Your task to perform on an android device: Look up the best gaming chair on Best Buy. Image 0: 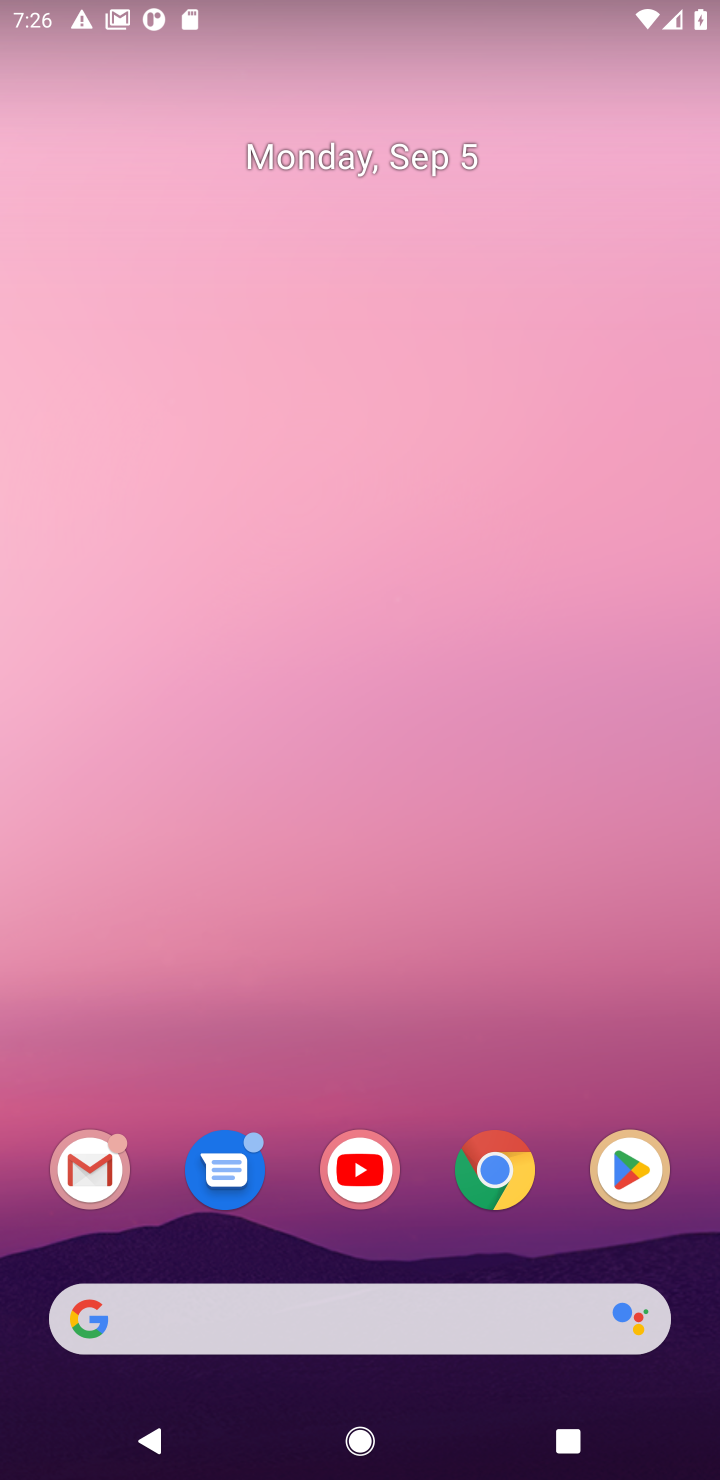
Step 0: click (513, 1177)
Your task to perform on an android device: Look up the best gaming chair on Best Buy. Image 1: 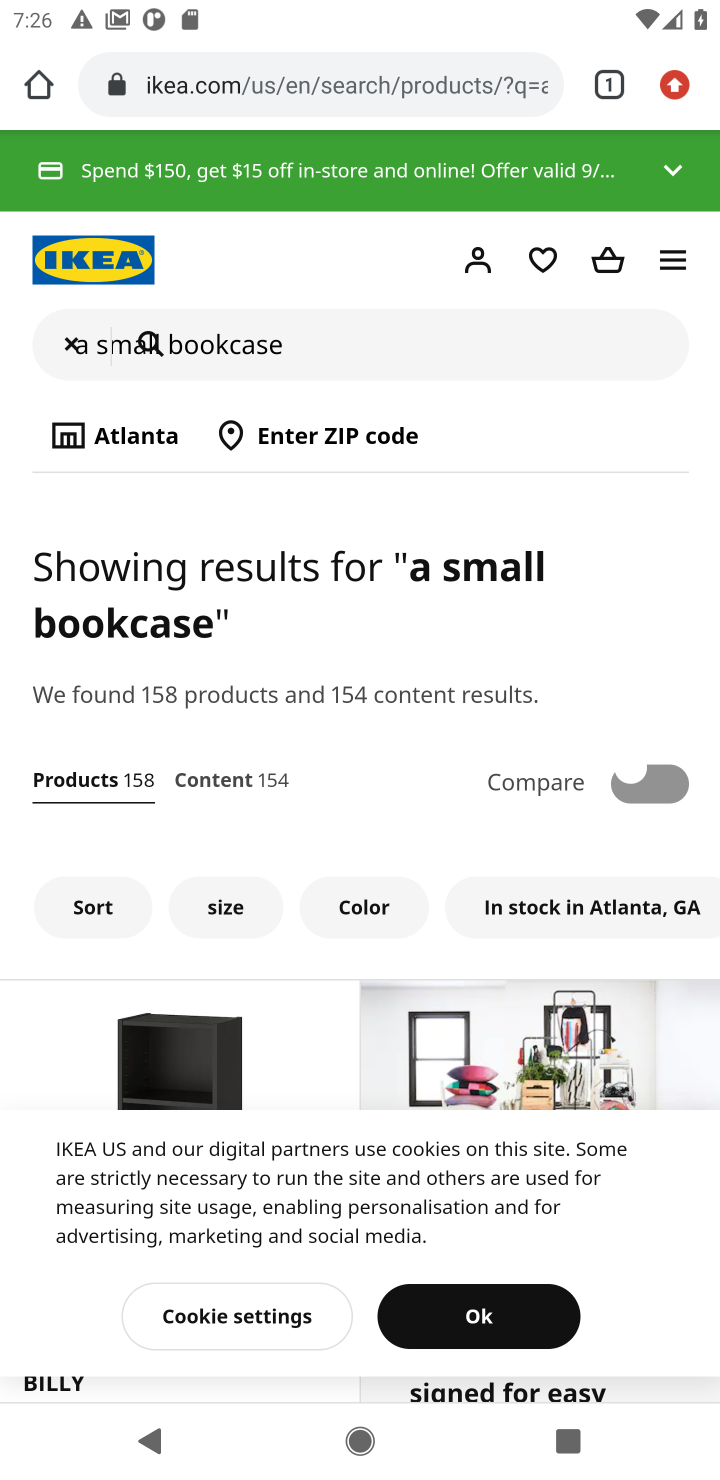
Step 1: click (440, 93)
Your task to perform on an android device: Look up the best gaming chair on Best Buy. Image 2: 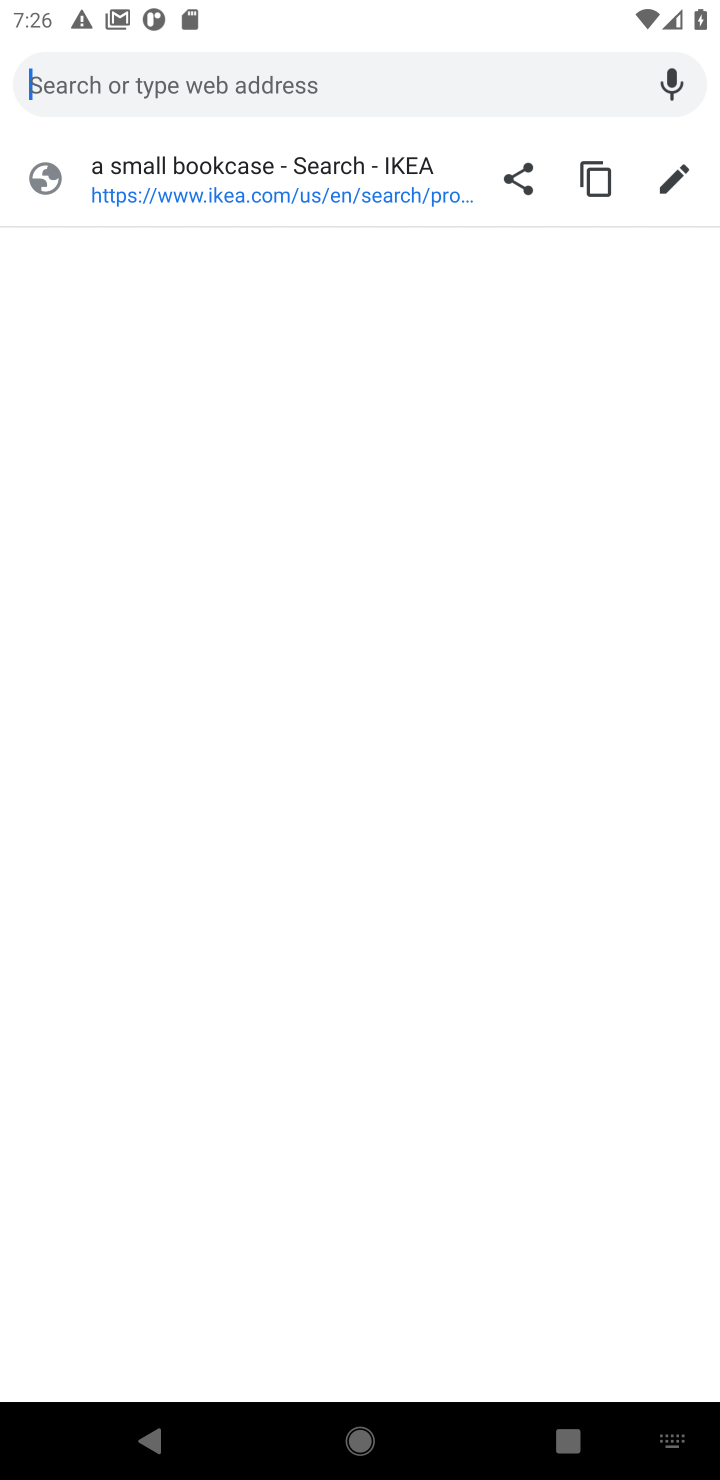
Step 2: type "best buy"
Your task to perform on an android device: Look up the best gaming chair on Best Buy. Image 3: 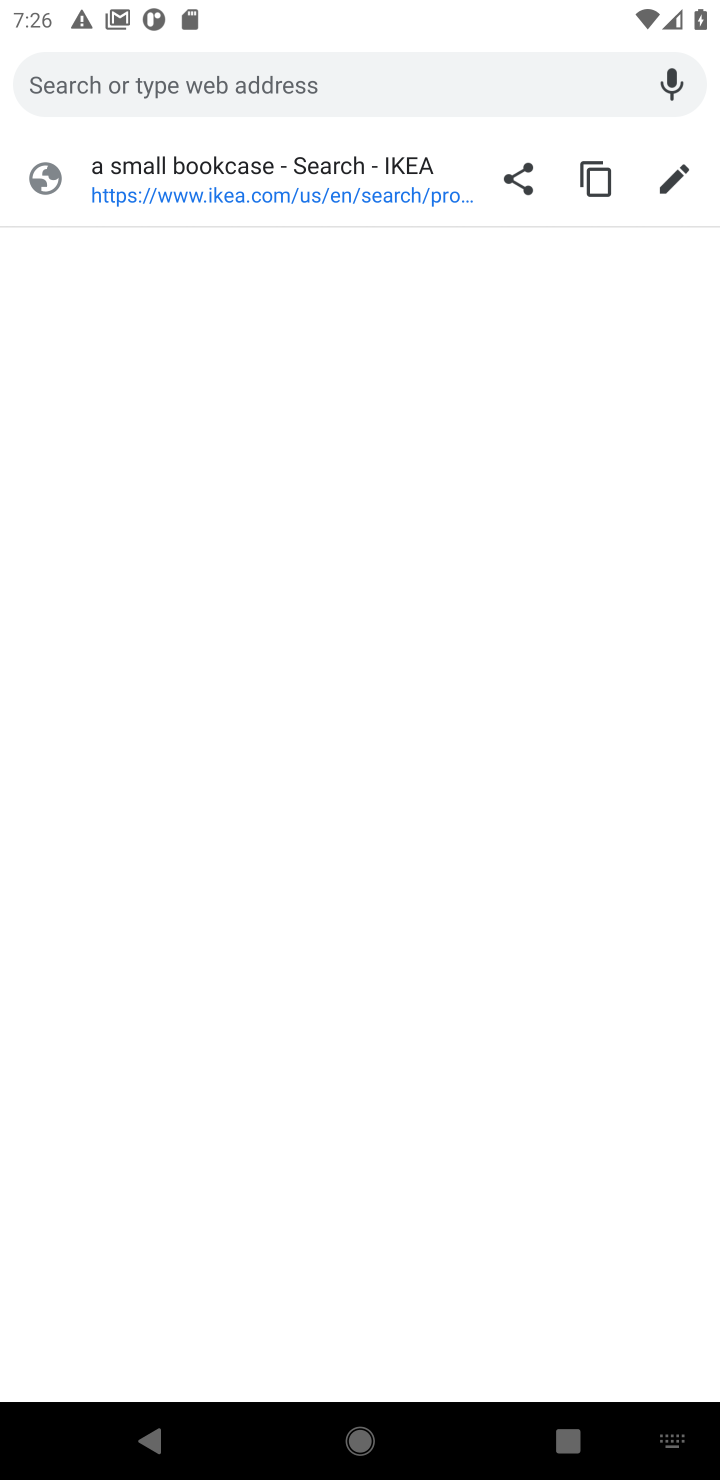
Step 3: click (467, 96)
Your task to perform on an android device: Look up the best gaming chair on Best Buy. Image 4: 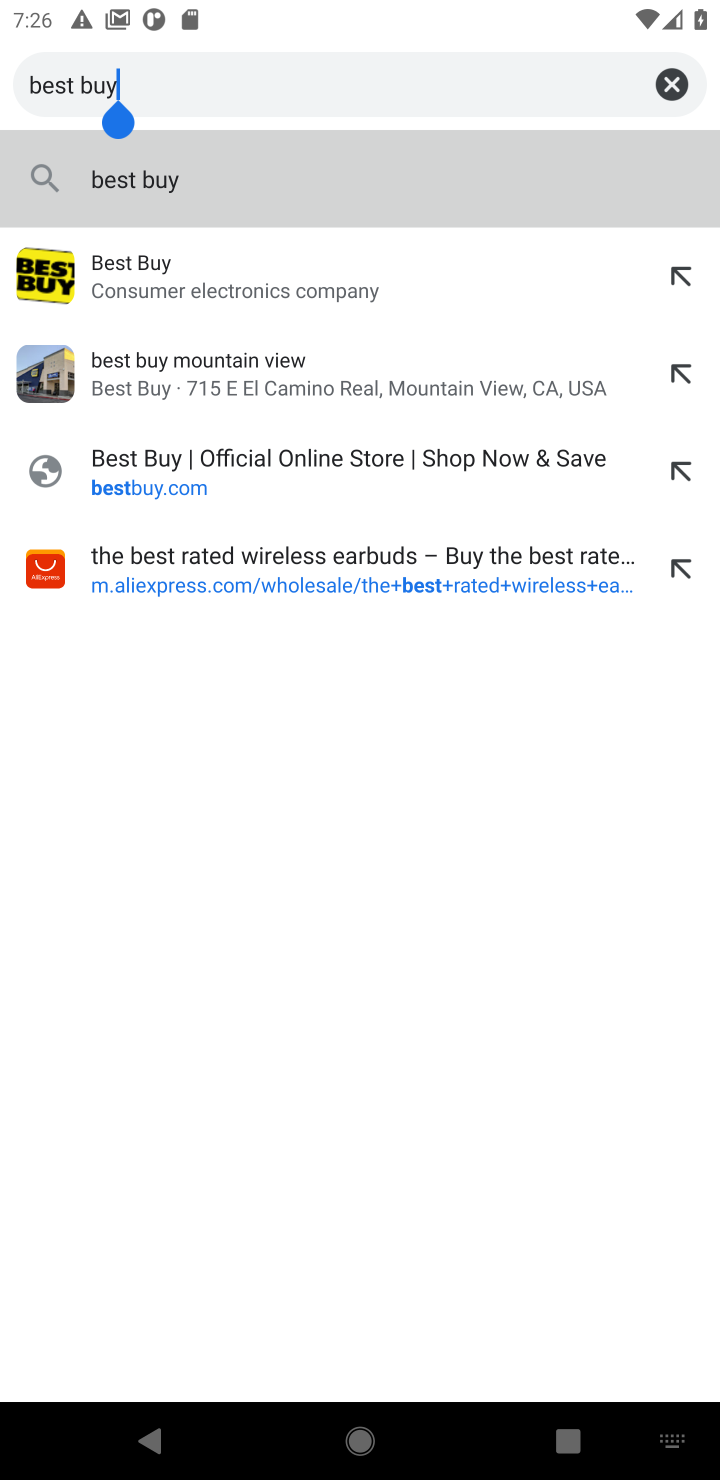
Step 4: click (236, 195)
Your task to perform on an android device: Look up the best gaming chair on Best Buy. Image 5: 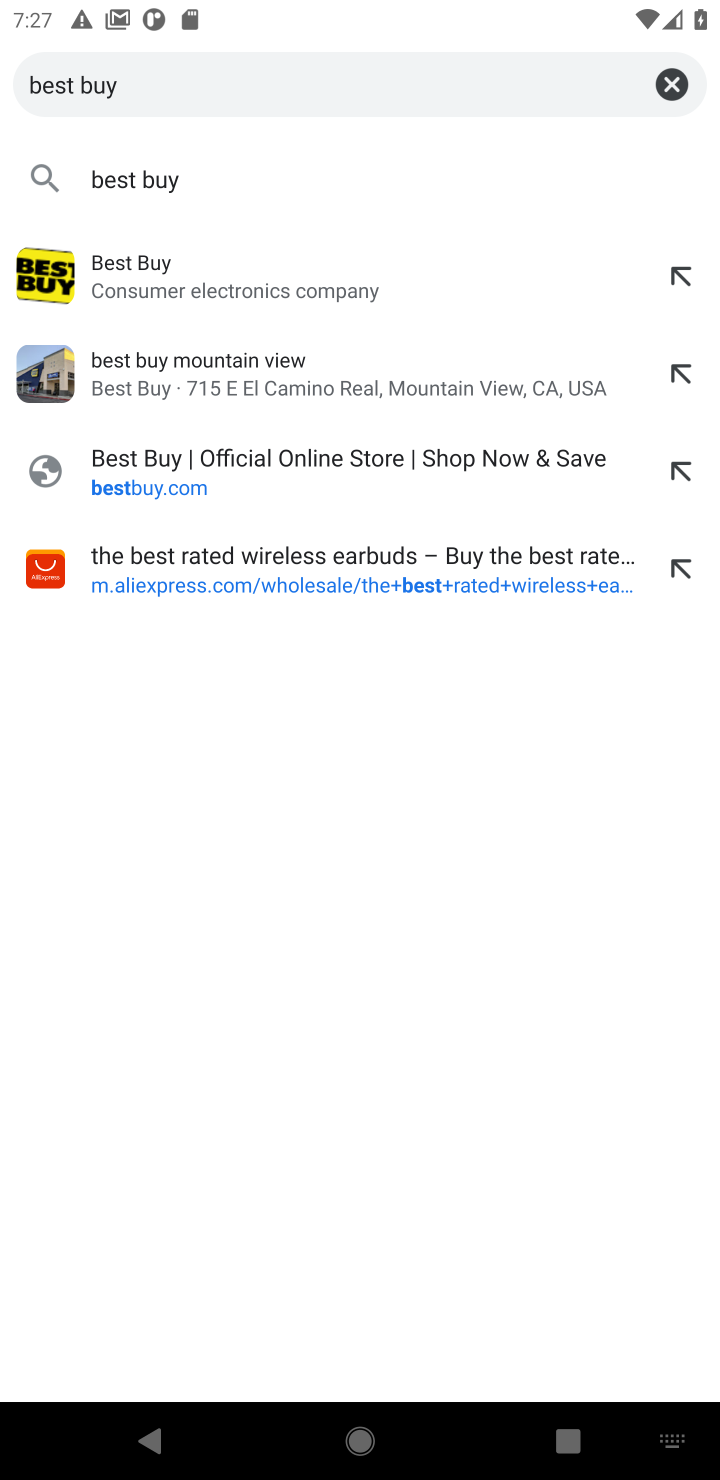
Step 5: click (150, 269)
Your task to perform on an android device: Look up the best gaming chair on Best Buy. Image 6: 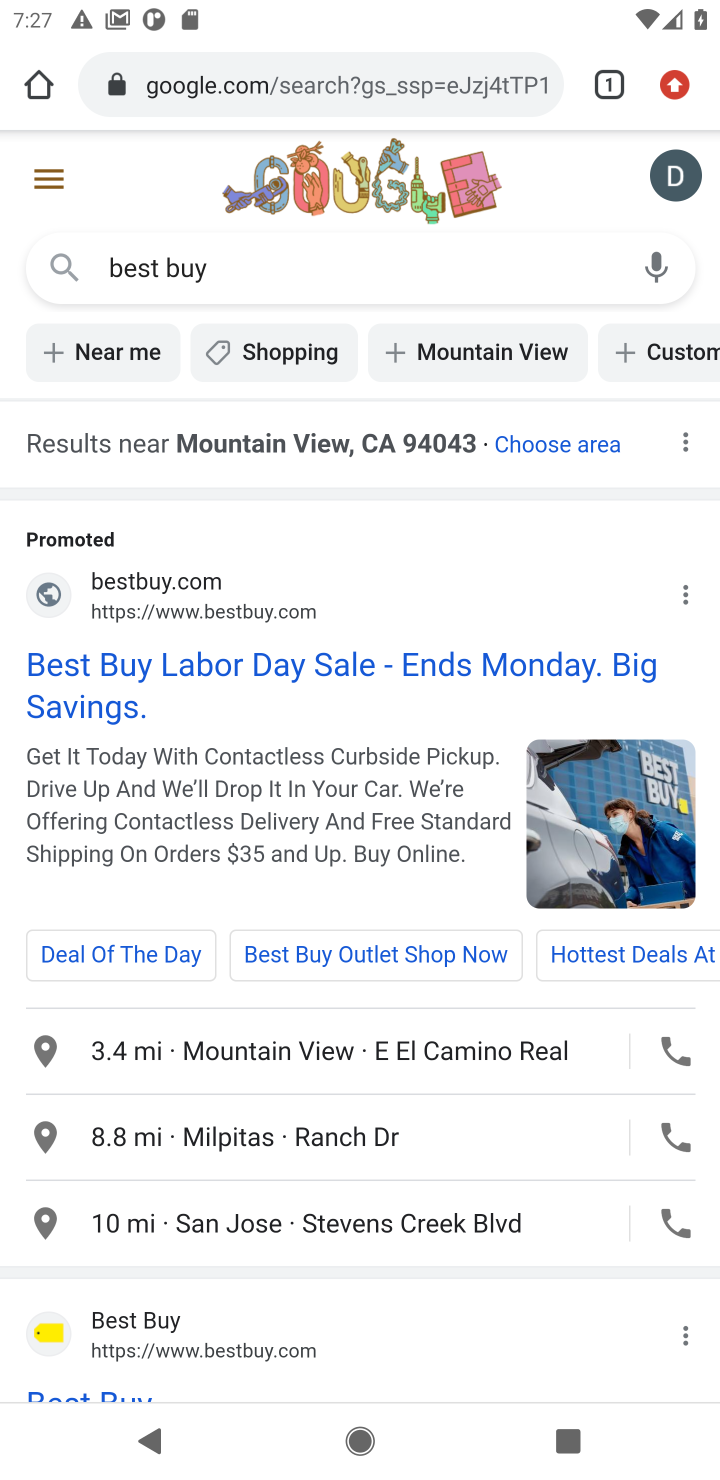
Step 6: click (233, 662)
Your task to perform on an android device: Look up the best gaming chair on Best Buy. Image 7: 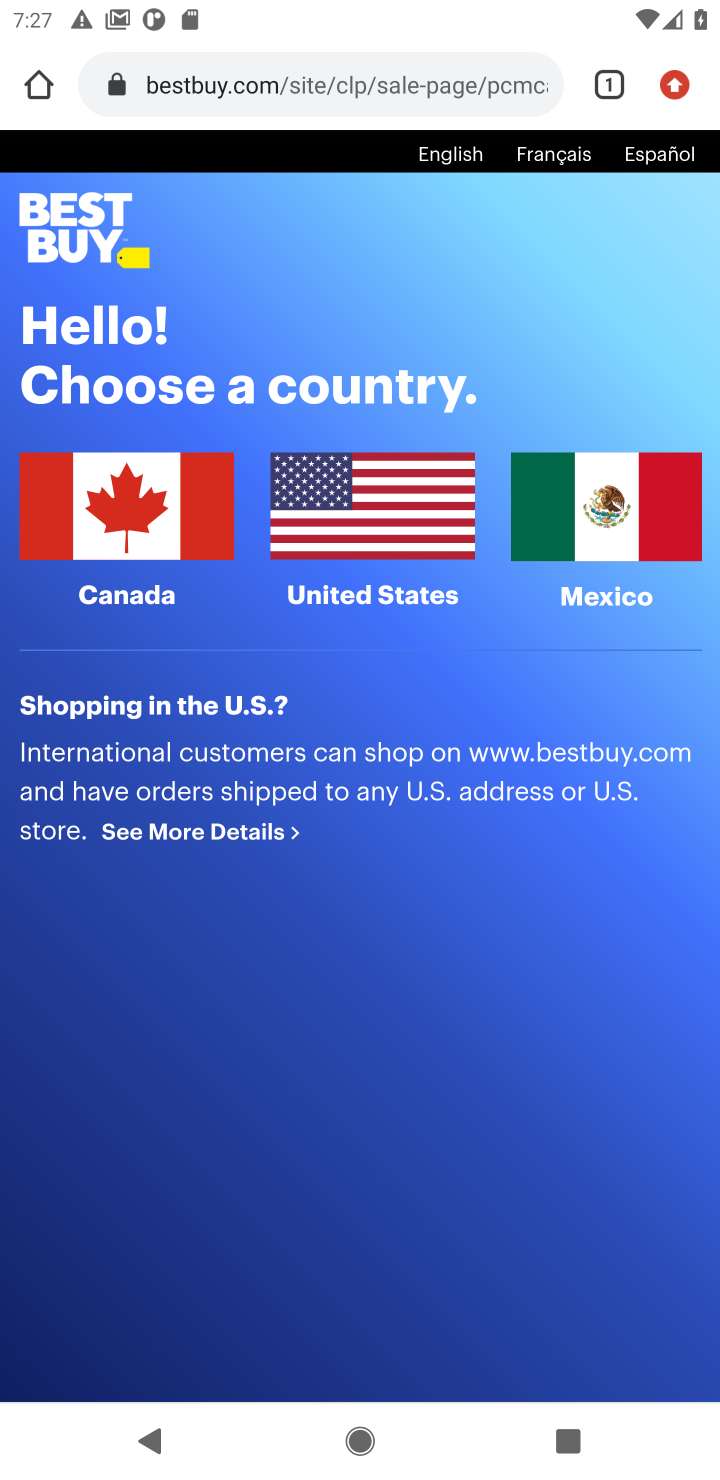
Step 7: click (376, 505)
Your task to perform on an android device: Look up the best gaming chair on Best Buy. Image 8: 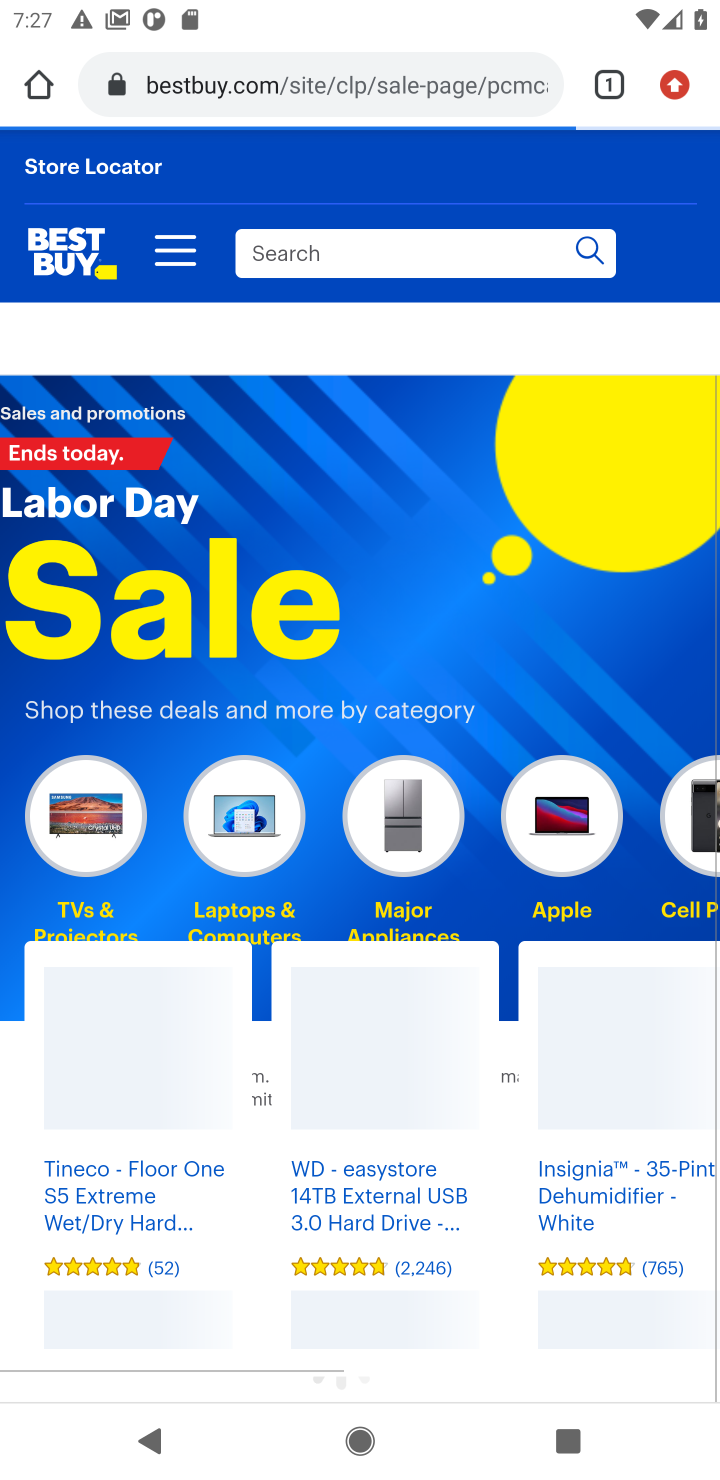
Step 8: click (345, 252)
Your task to perform on an android device: Look up the best gaming chair on Best Buy. Image 9: 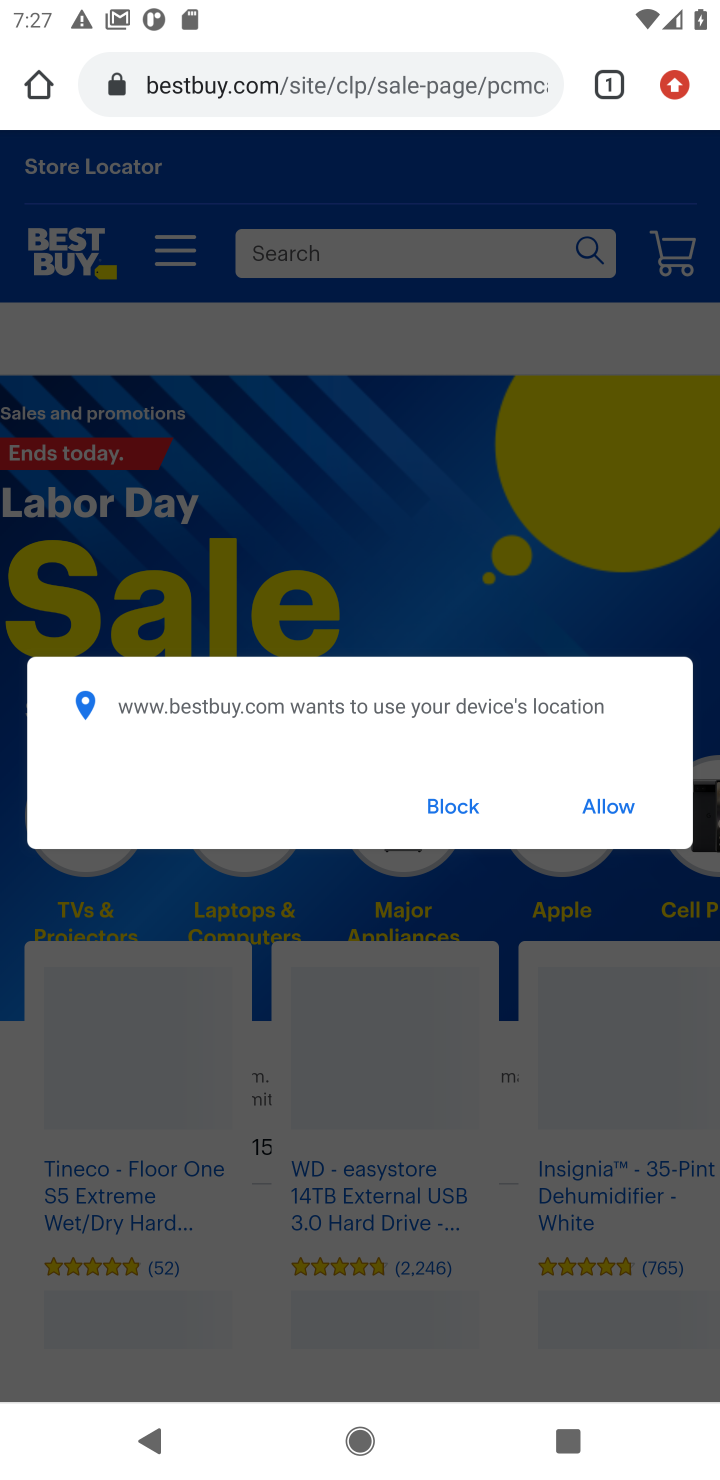
Step 9: type "the best gaming chair"
Your task to perform on an android device: Look up the best gaming chair on Best Buy. Image 10: 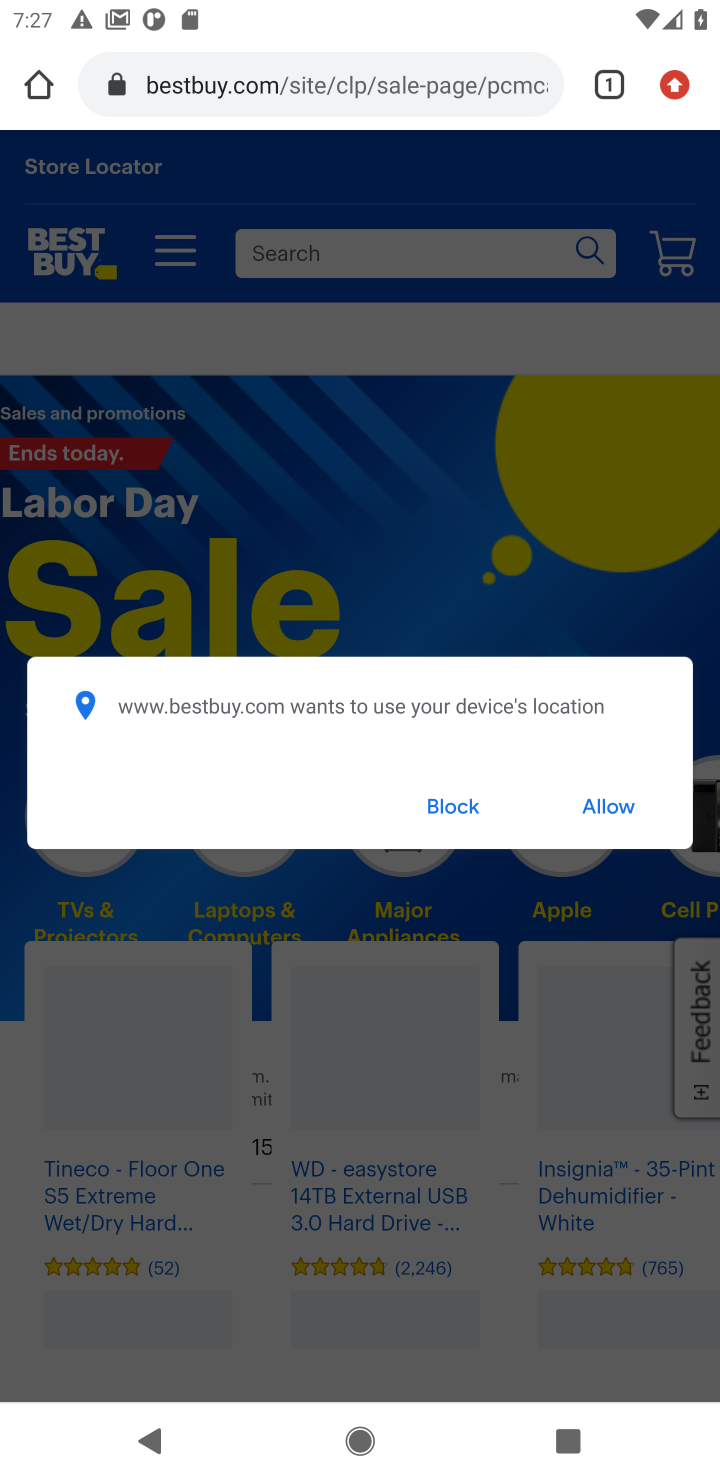
Step 10: click (451, 804)
Your task to perform on an android device: Look up the best gaming chair on Best Buy. Image 11: 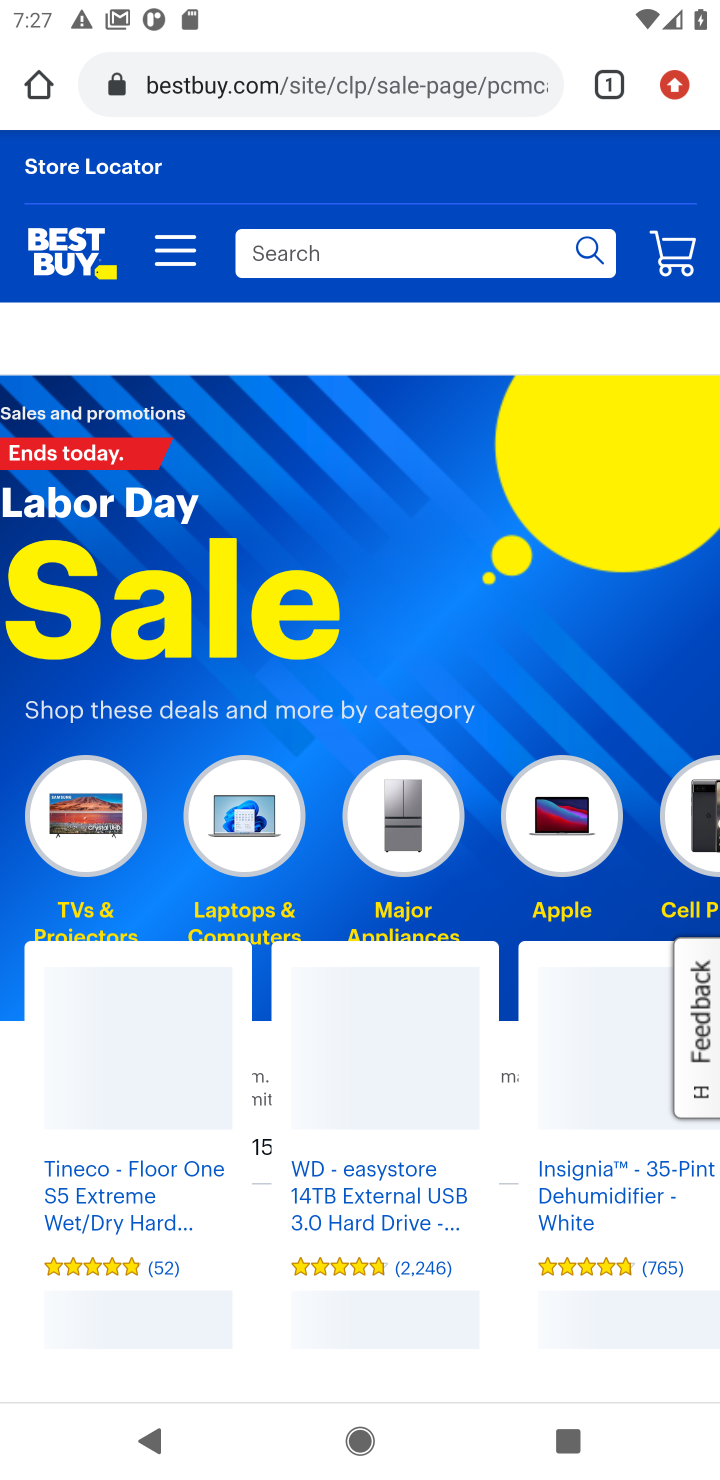
Step 11: type "the best gaming chair"
Your task to perform on an android device: Look up the best gaming chair on Best Buy. Image 12: 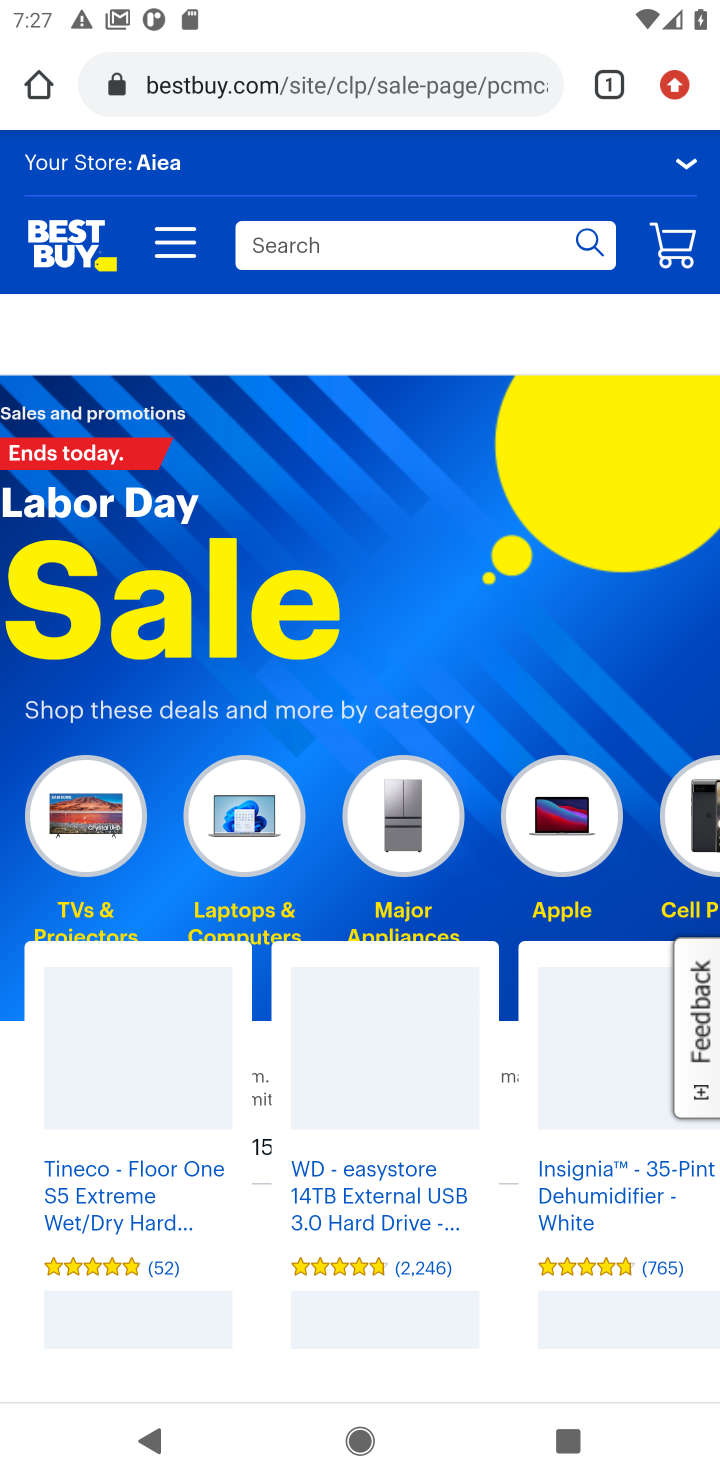
Step 12: click (413, 238)
Your task to perform on an android device: Look up the best gaming chair on Best Buy. Image 13: 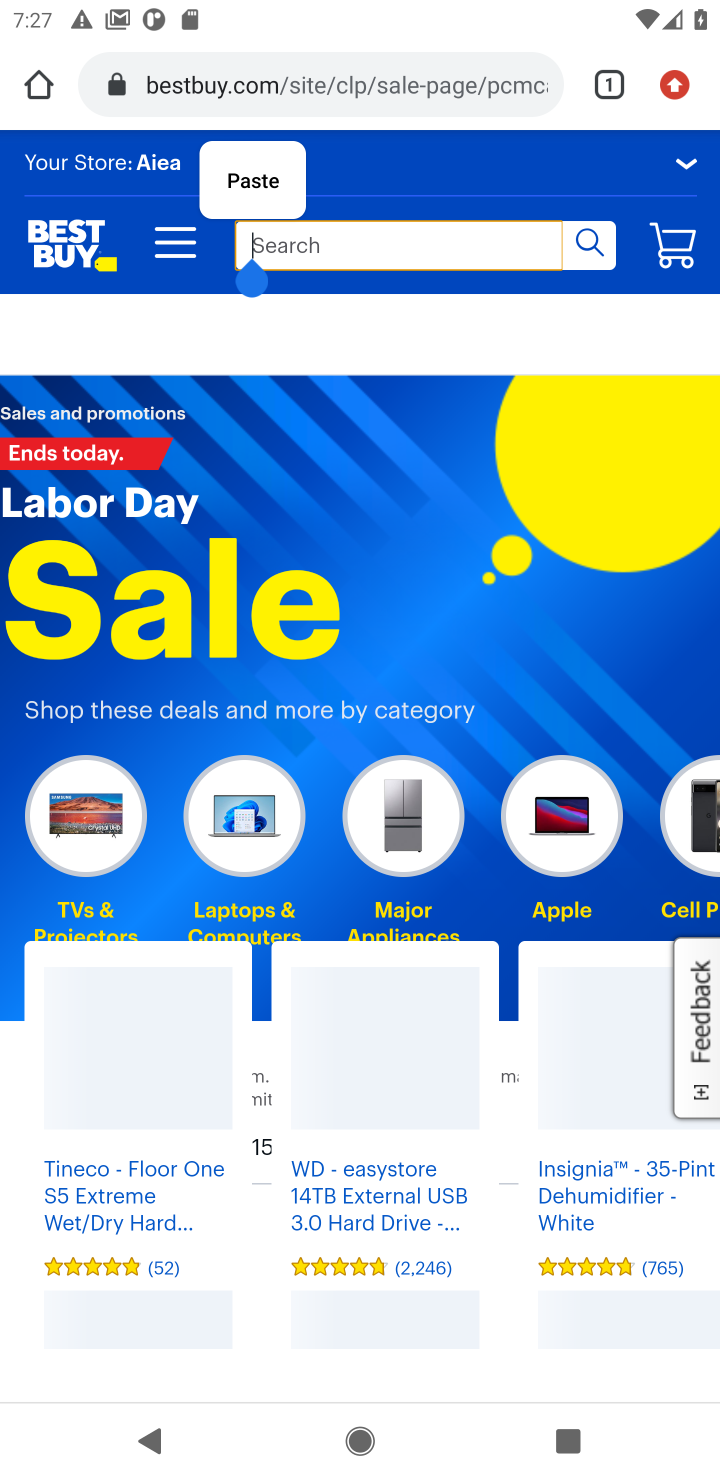
Step 13: type "the best gaming chair"
Your task to perform on an android device: Look up the best gaming chair on Best Buy. Image 14: 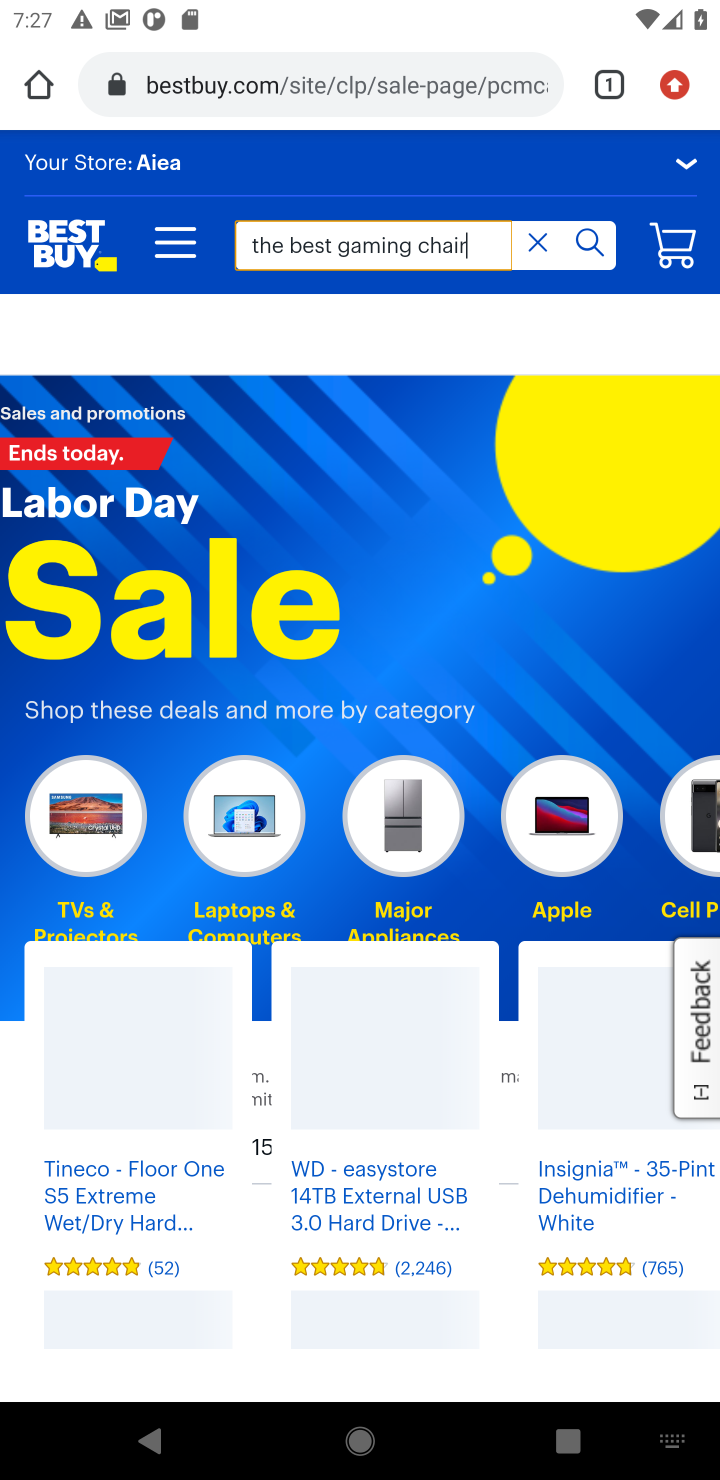
Step 14: click (590, 241)
Your task to perform on an android device: Look up the best gaming chair on Best Buy. Image 15: 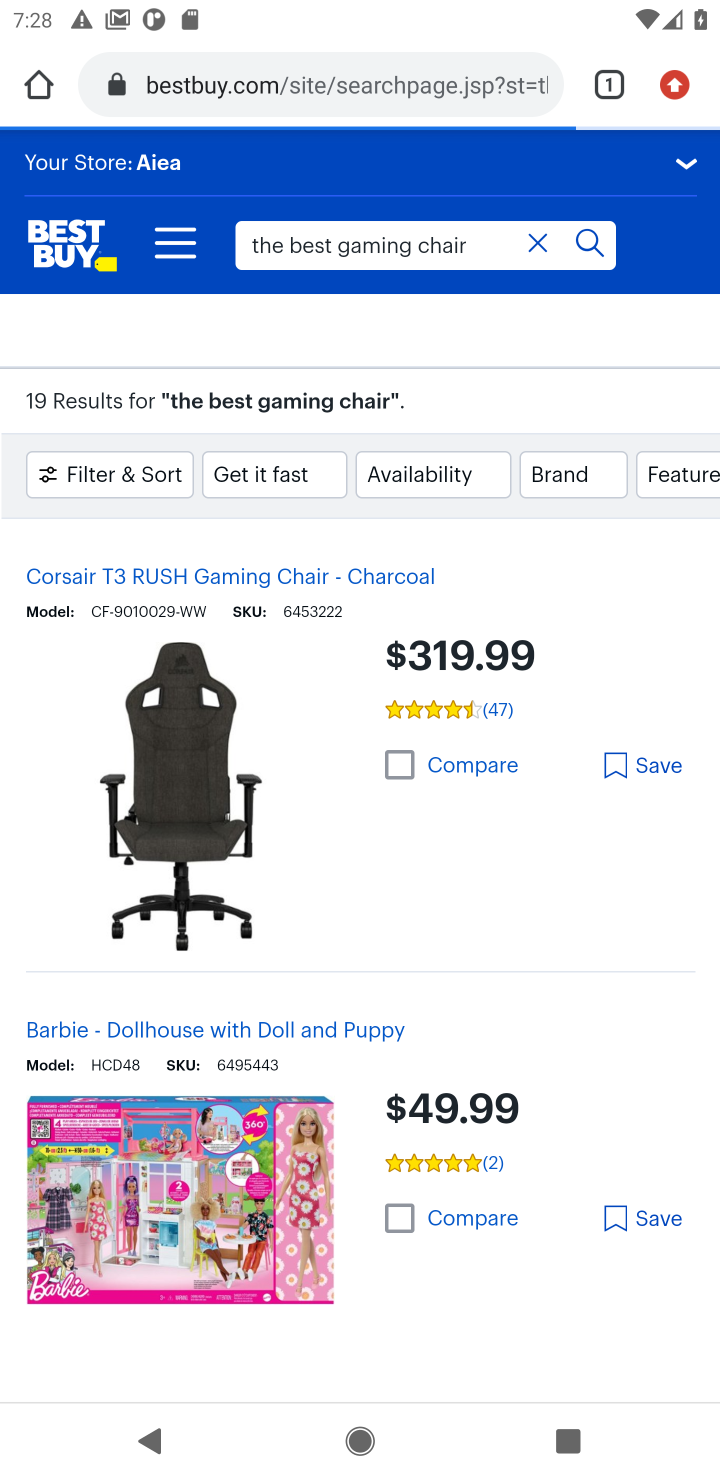
Step 15: task complete